Your task to perform on an android device: stop showing notifications on the lock screen Image 0: 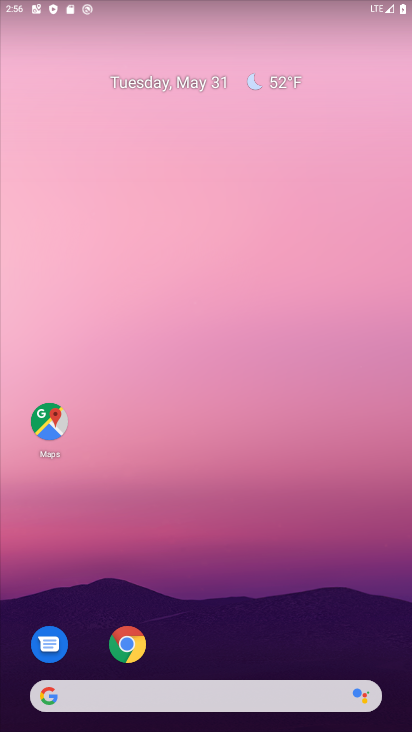
Step 0: drag from (145, 702) to (134, 14)
Your task to perform on an android device: stop showing notifications on the lock screen Image 1: 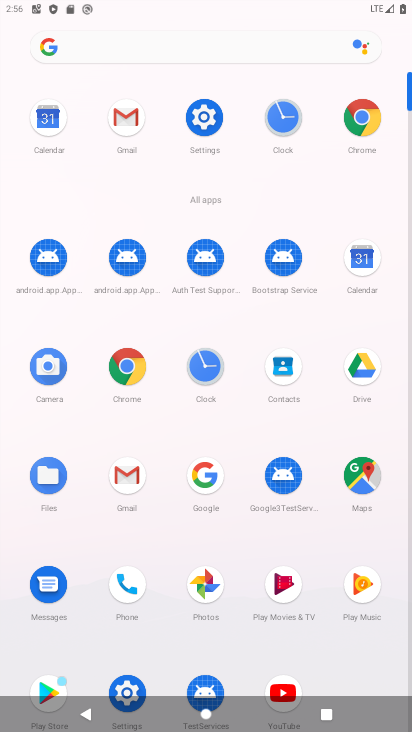
Step 1: click (209, 131)
Your task to perform on an android device: stop showing notifications on the lock screen Image 2: 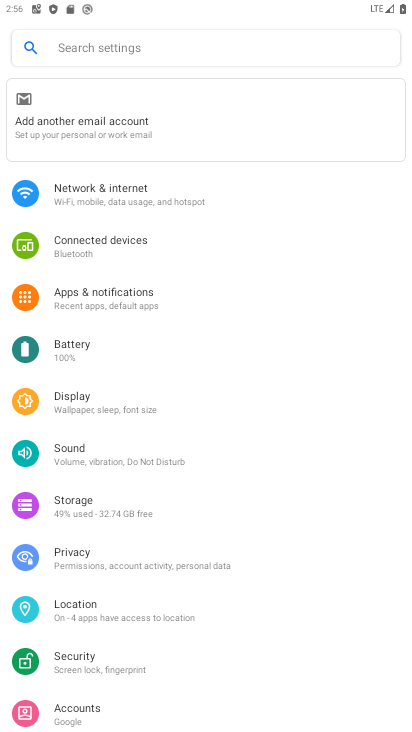
Step 2: click (125, 299)
Your task to perform on an android device: stop showing notifications on the lock screen Image 3: 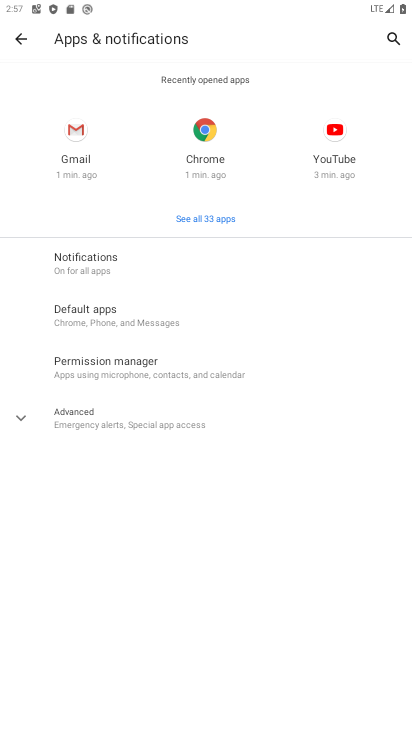
Step 3: click (118, 261)
Your task to perform on an android device: stop showing notifications on the lock screen Image 4: 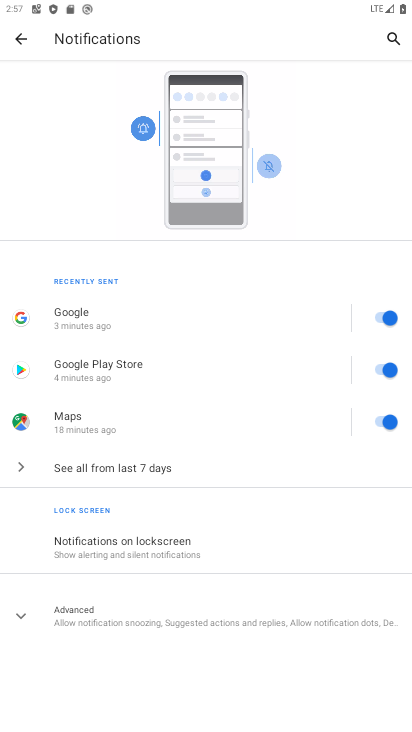
Step 4: click (170, 621)
Your task to perform on an android device: stop showing notifications on the lock screen Image 5: 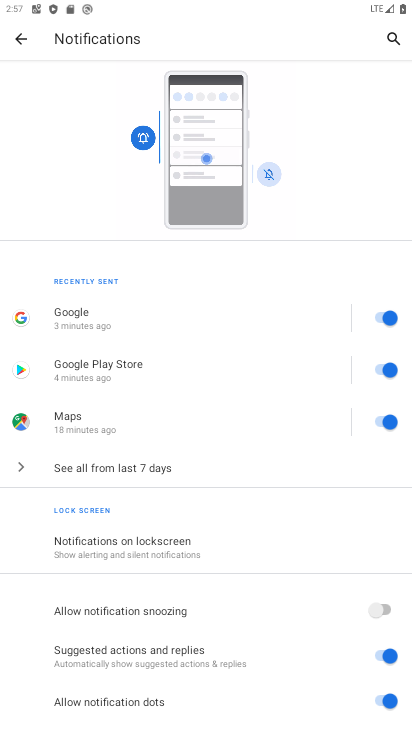
Step 5: drag from (237, 655) to (247, 428)
Your task to perform on an android device: stop showing notifications on the lock screen Image 6: 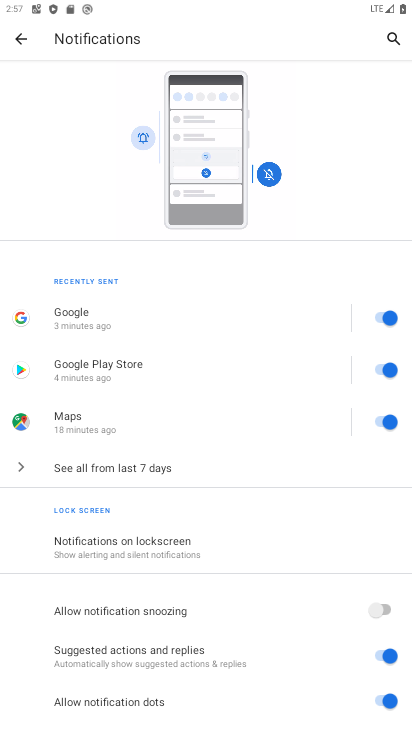
Step 6: click (204, 543)
Your task to perform on an android device: stop showing notifications on the lock screen Image 7: 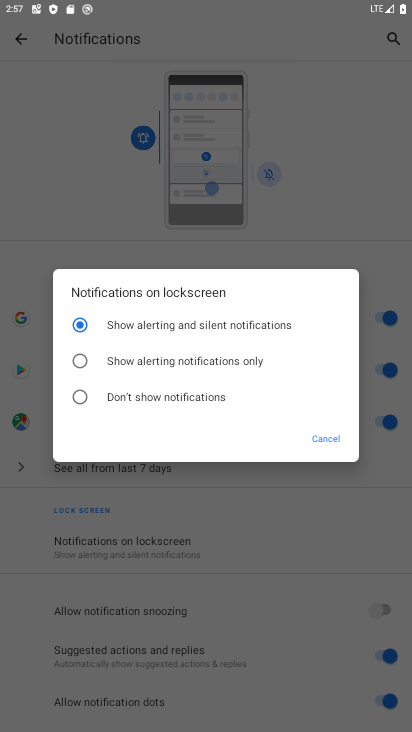
Step 7: task complete